Your task to perform on an android device: turn off priority inbox in the gmail app Image 0: 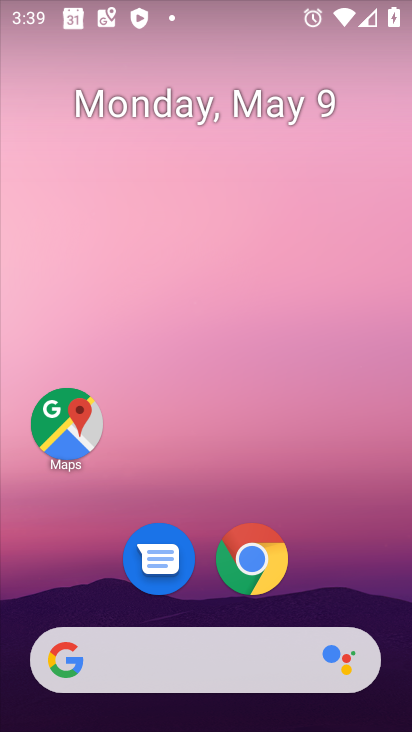
Step 0: drag from (212, 718) to (212, 134)
Your task to perform on an android device: turn off priority inbox in the gmail app Image 1: 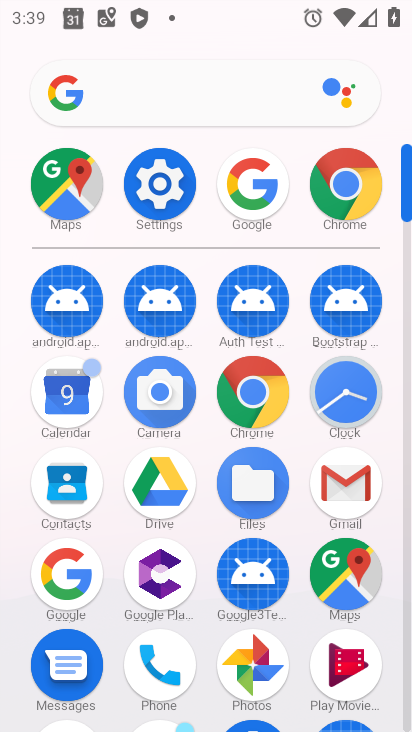
Step 1: click (351, 489)
Your task to perform on an android device: turn off priority inbox in the gmail app Image 2: 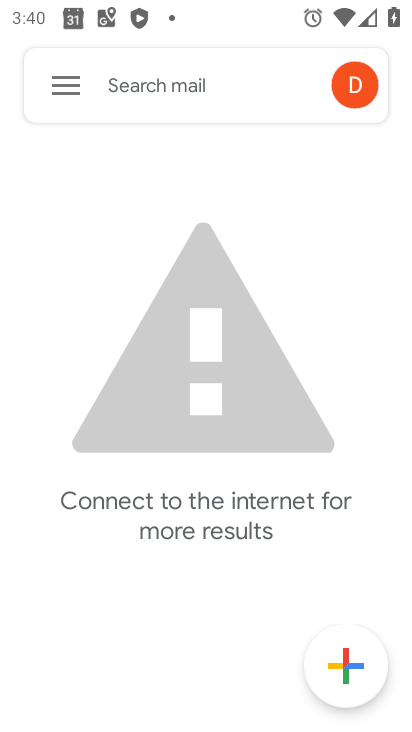
Step 2: click (55, 82)
Your task to perform on an android device: turn off priority inbox in the gmail app Image 3: 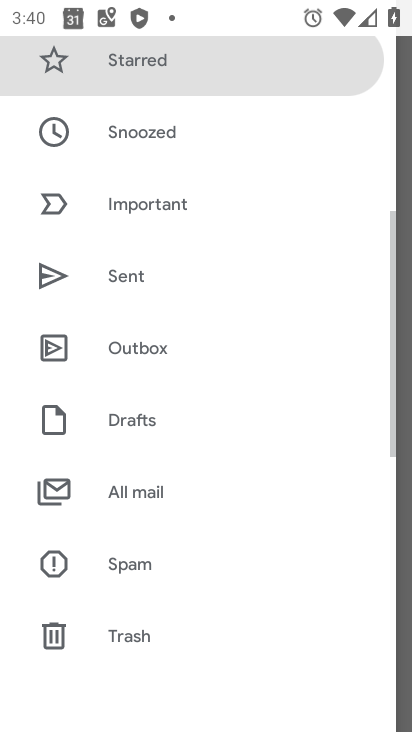
Step 3: drag from (162, 633) to (170, 148)
Your task to perform on an android device: turn off priority inbox in the gmail app Image 4: 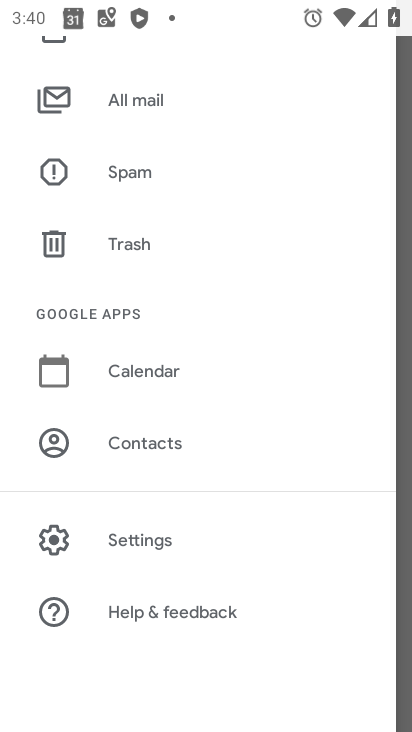
Step 4: click (121, 527)
Your task to perform on an android device: turn off priority inbox in the gmail app Image 5: 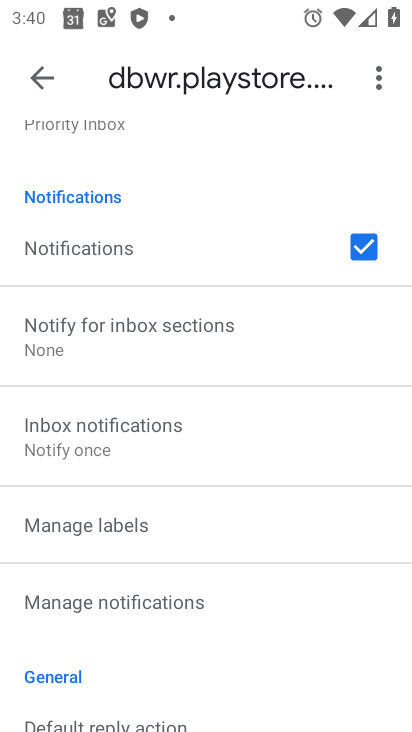
Step 5: drag from (177, 638) to (230, 692)
Your task to perform on an android device: turn off priority inbox in the gmail app Image 6: 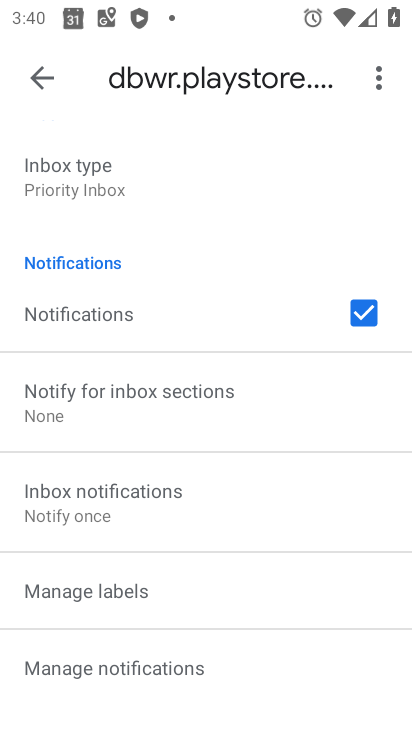
Step 6: drag from (219, 165) to (215, 558)
Your task to perform on an android device: turn off priority inbox in the gmail app Image 7: 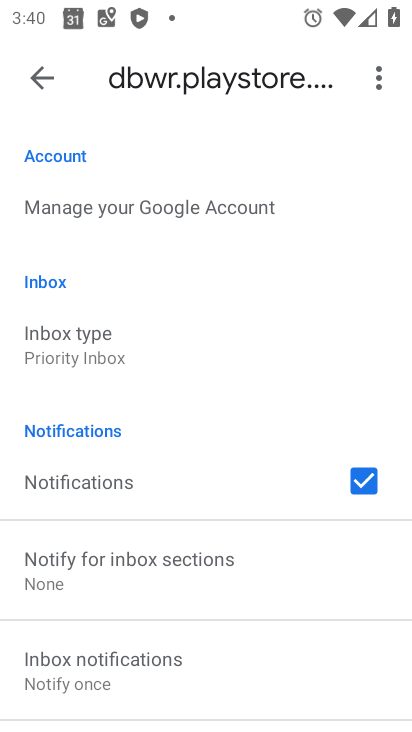
Step 7: click (79, 345)
Your task to perform on an android device: turn off priority inbox in the gmail app Image 8: 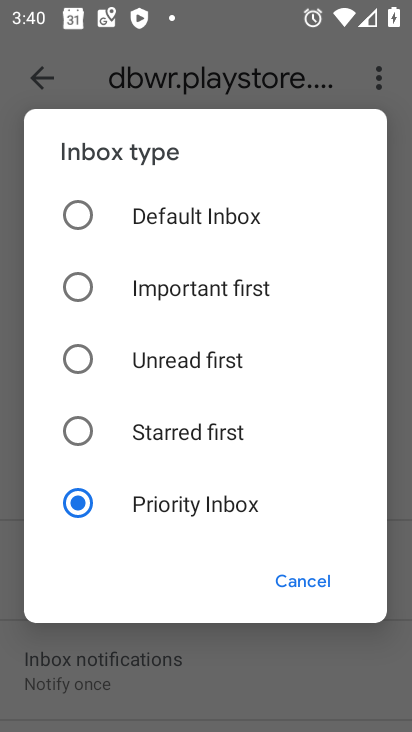
Step 8: click (81, 221)
Your task to perform on an android device: turn off priority inbox in the gmail app Image 9: 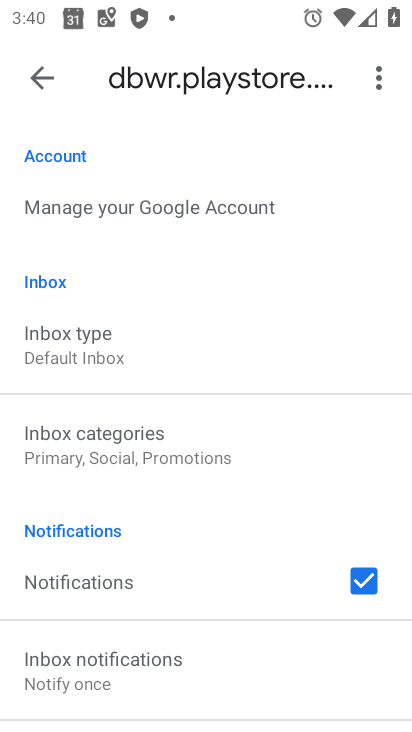
Step 9: task complete